Your task to perform on an android device: Go to network settings Image 0: 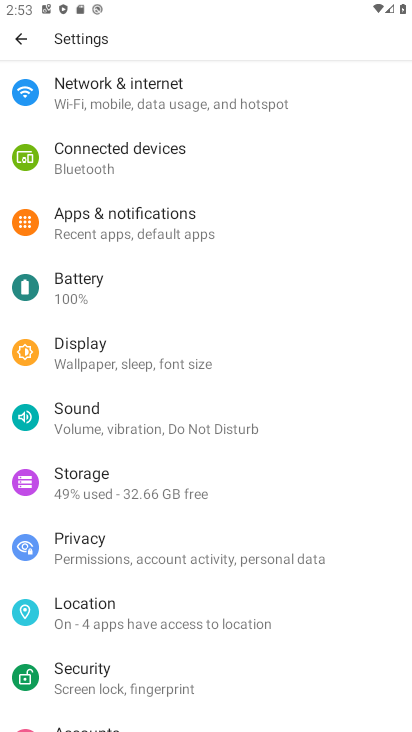
Step 0: press back button
Your task to perform on an android device: Go to network settings Image 1: 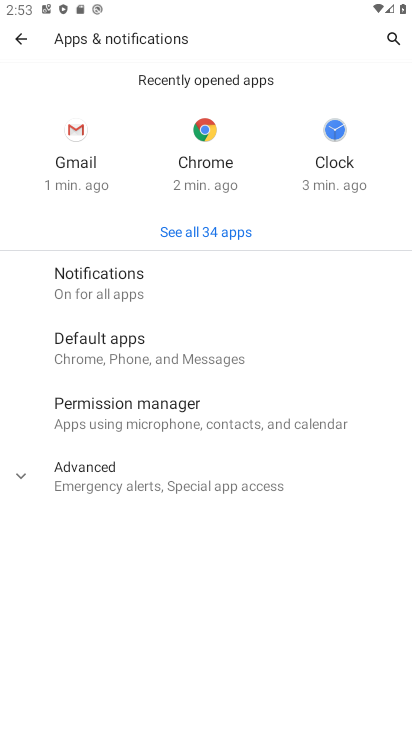
Step 1: click (16, 28)
Your task to perform on an android device: Go to network settings Image 2: 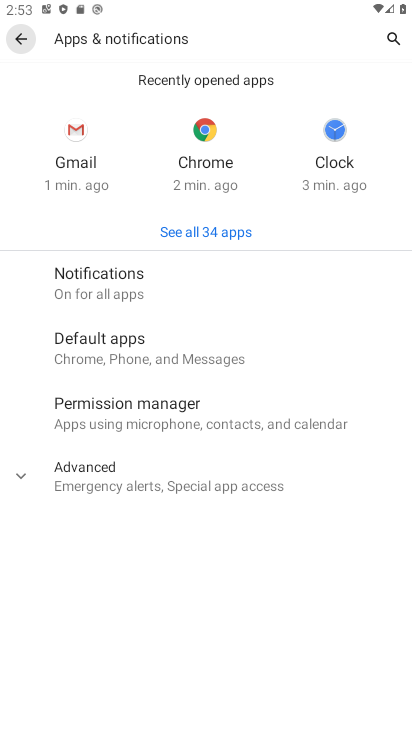
Step 2: click (21, 27)
Your task to perform on an android device: Go to network settings Image 3: 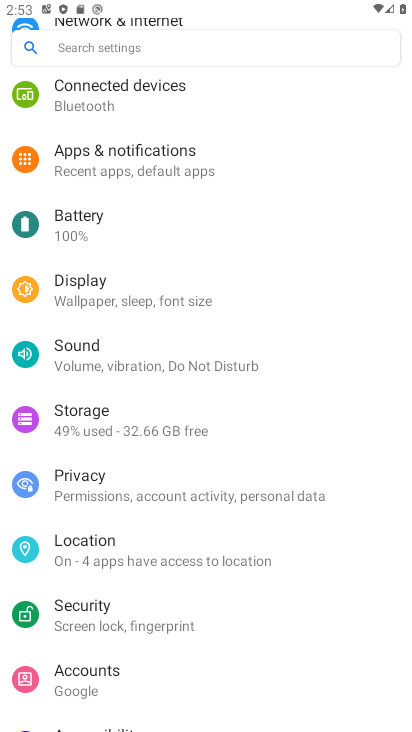
Step 3: drag from (153, 103) to (214, 370)
Your task to perform on an android device: Go to network settings Image 4: 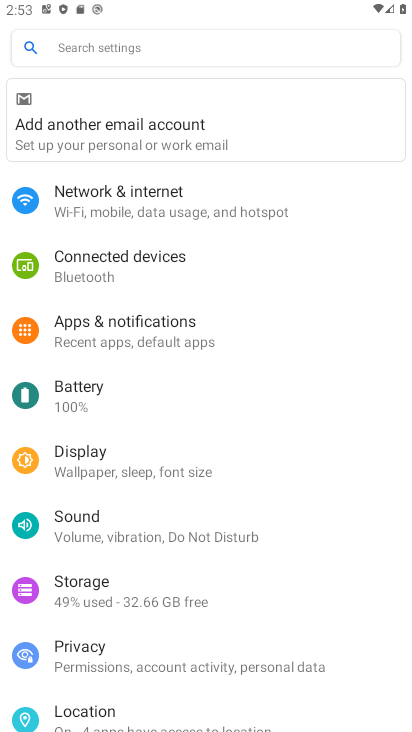
Step 4: click (130, 197)
Your task to perform on an android device: Go to network settings Image 5: 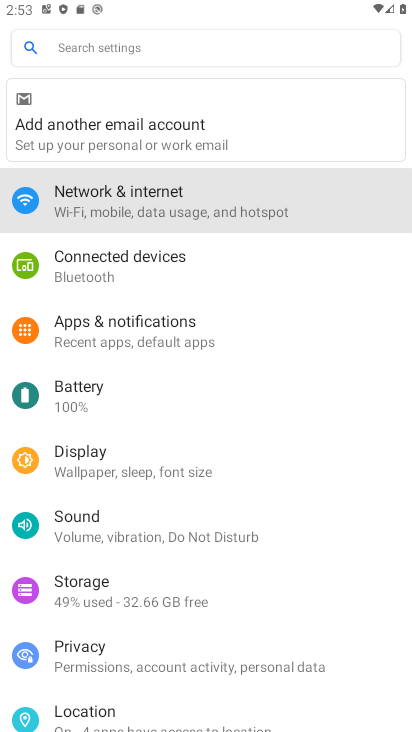
Step 5: click (129, 196)
Your task to perform on an android device: Go to network settings Image 6: 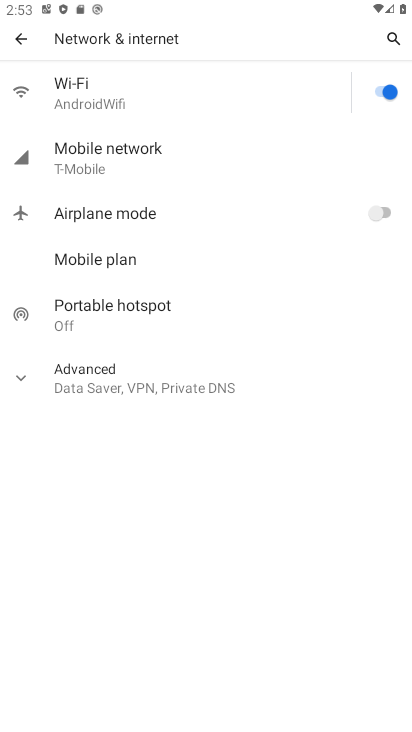
Step 6: task complete